Your task to perform on an android device: When is my next meeting? Image 0: 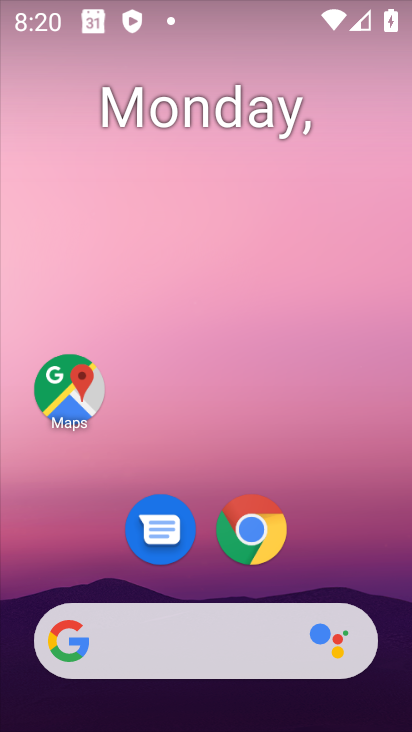
Step 0: drag from (249, 699) to (225, 212)
Your task to perform on an android device: When is my next meeting? Image 1: 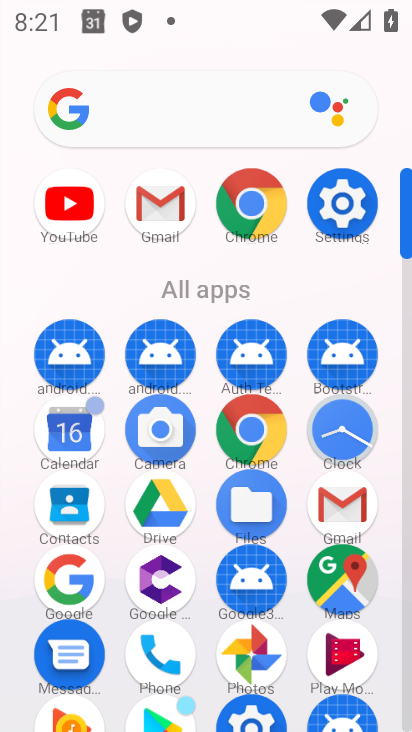
Step 1: click (91, 436)
Your task to perform on an android device: When is my next meeting? Image 2: 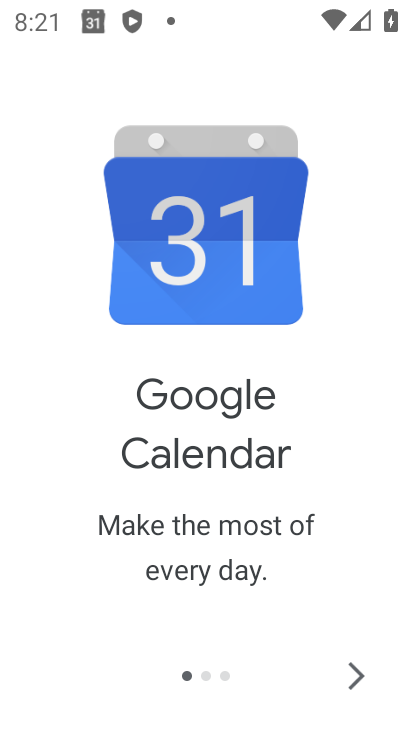
Step 2: click (355, 681)
Your task to perform on an android device: When is my next meeting? Image 3: 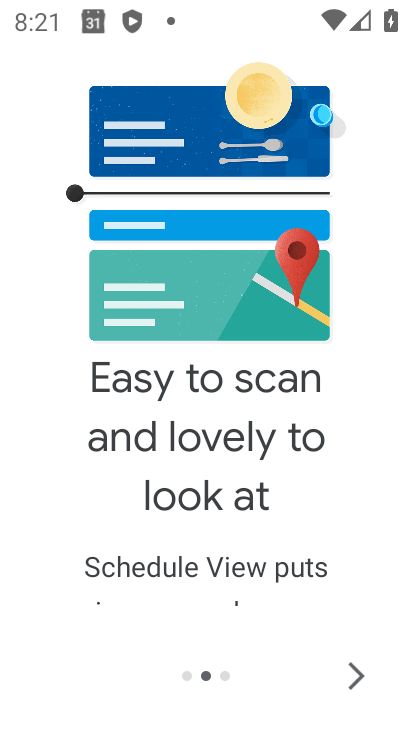
Step 3: click (355, 681)
Your task to perform on an android device: When is my next meeting? Image 4: 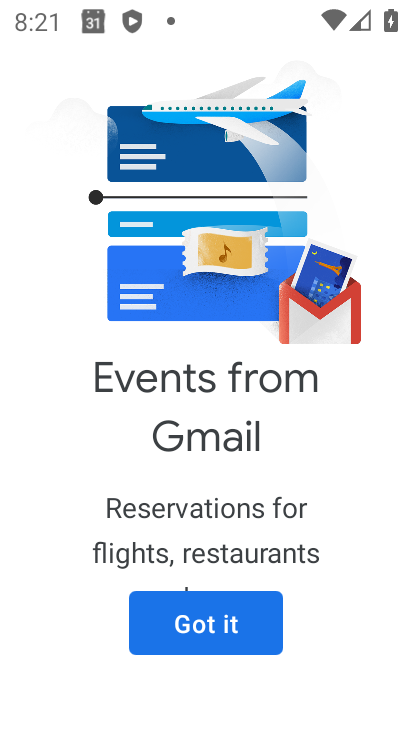
Step 4: click (248, 634)
Your task to perform on an android device: When is my next meeting? Image 5: 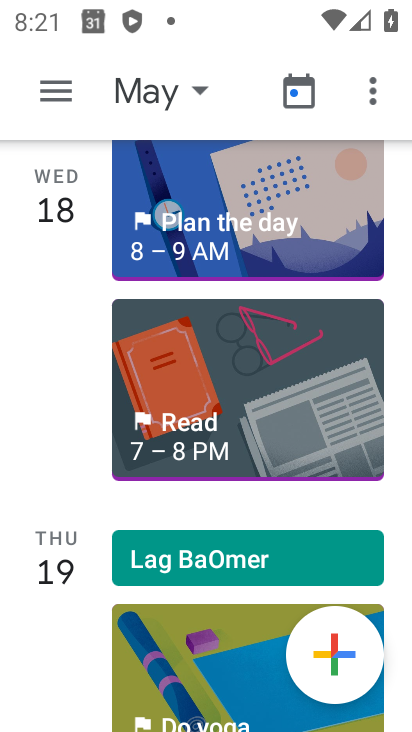
Step 5: task complete